Your task to perform on an android device: change alarm snooze length Image 0: 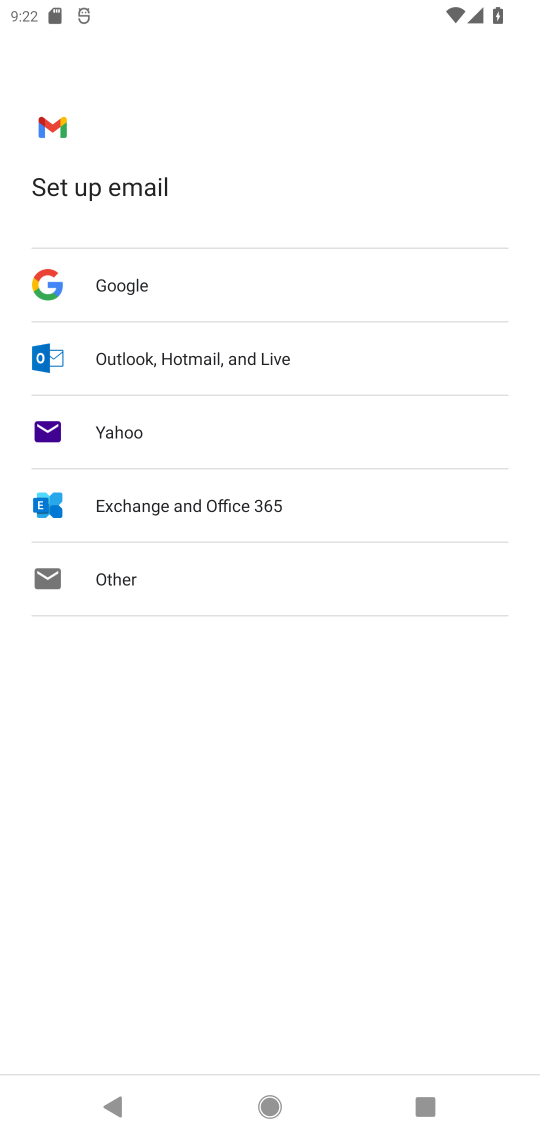
Step 0: press home button
Your task to perform on an android device: change alarm snooze length Image 1: 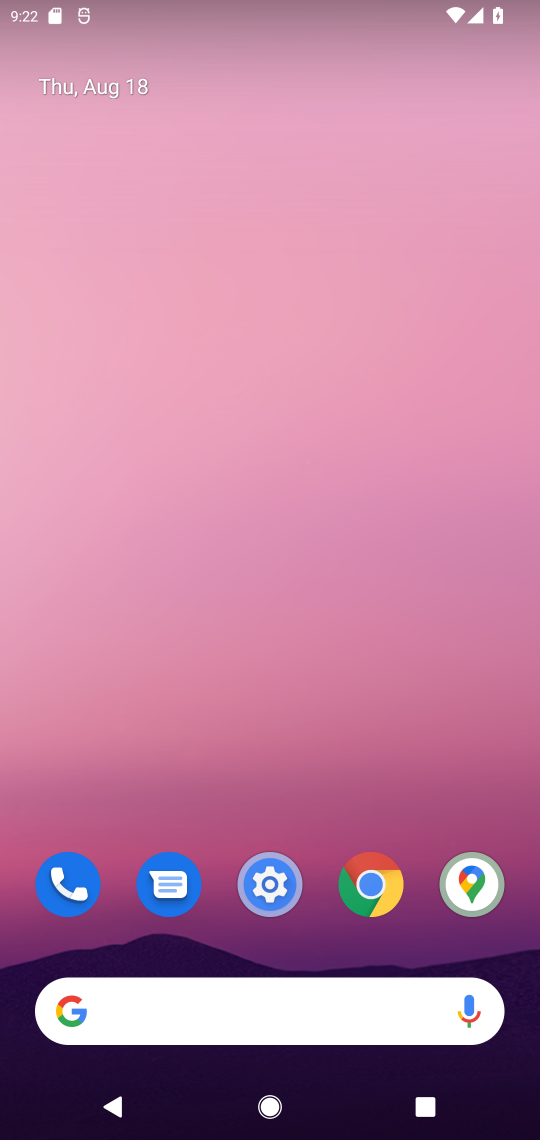
Step 1: drag from (218, 948) to (290, 57)
Your task to perform on an android device: change alarm snooze length Image 2: 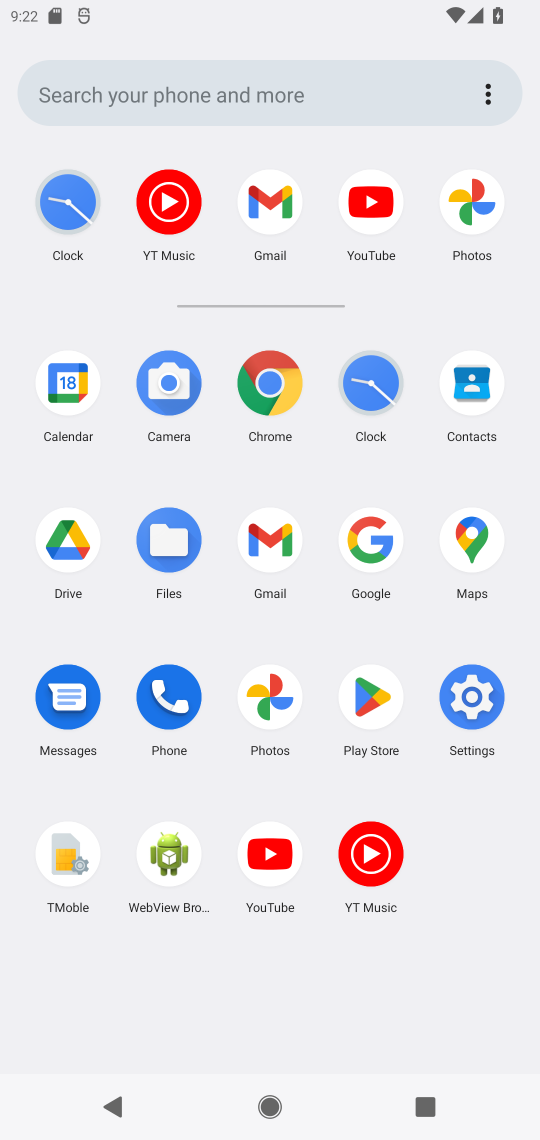
Step 2: click (74, 299)
Your task to perform on an android device: change alarm snooze length Image 3: 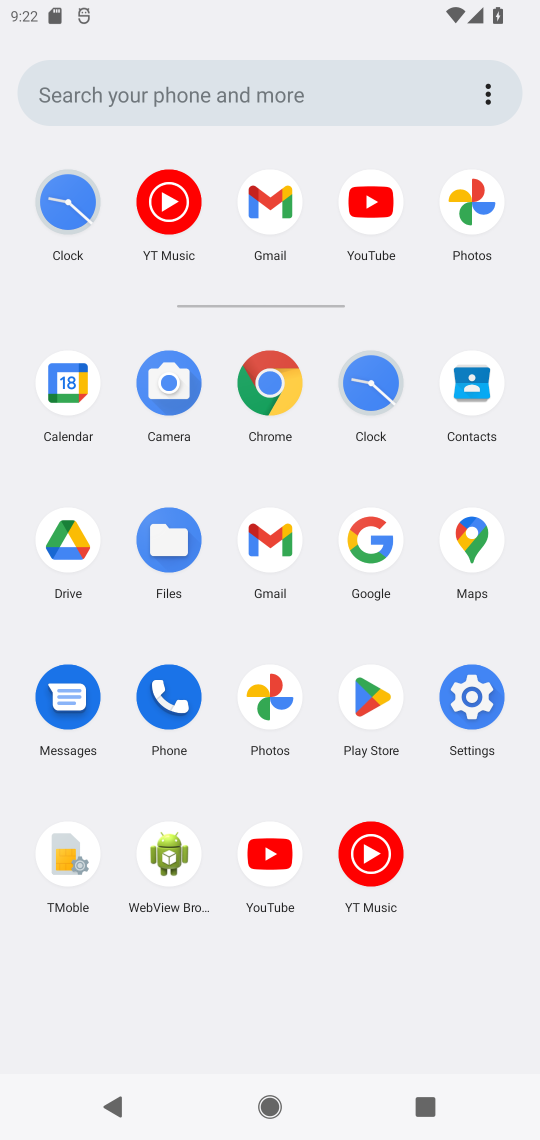
Step 3: click (69, 228)
Your task to perform on an android device: change alarm snooze length Image 4: 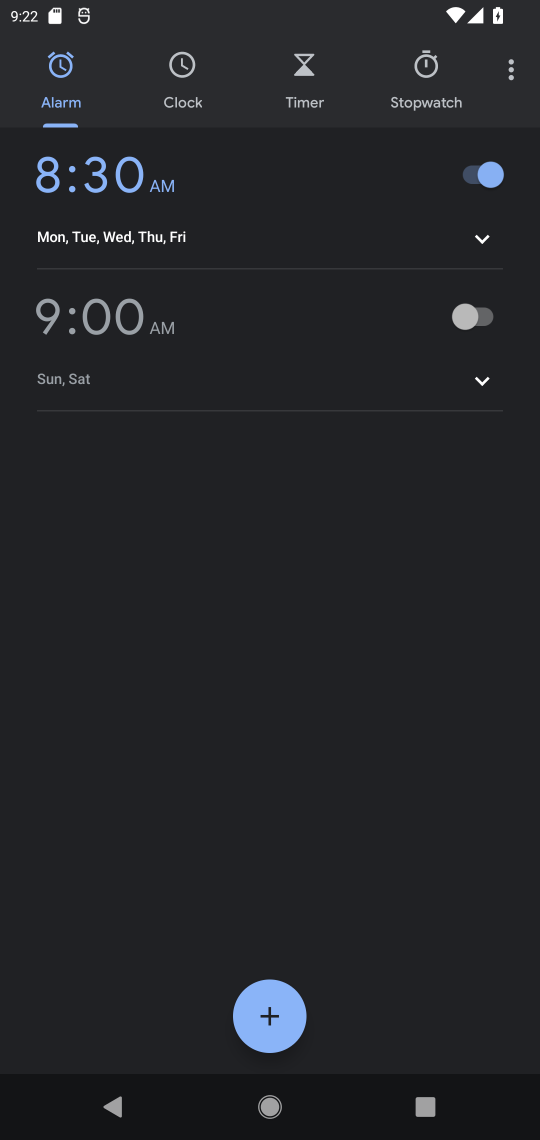
Step 4: click (523, 66)
Your task to perform on an android device: change alarm snooze length Image 5: 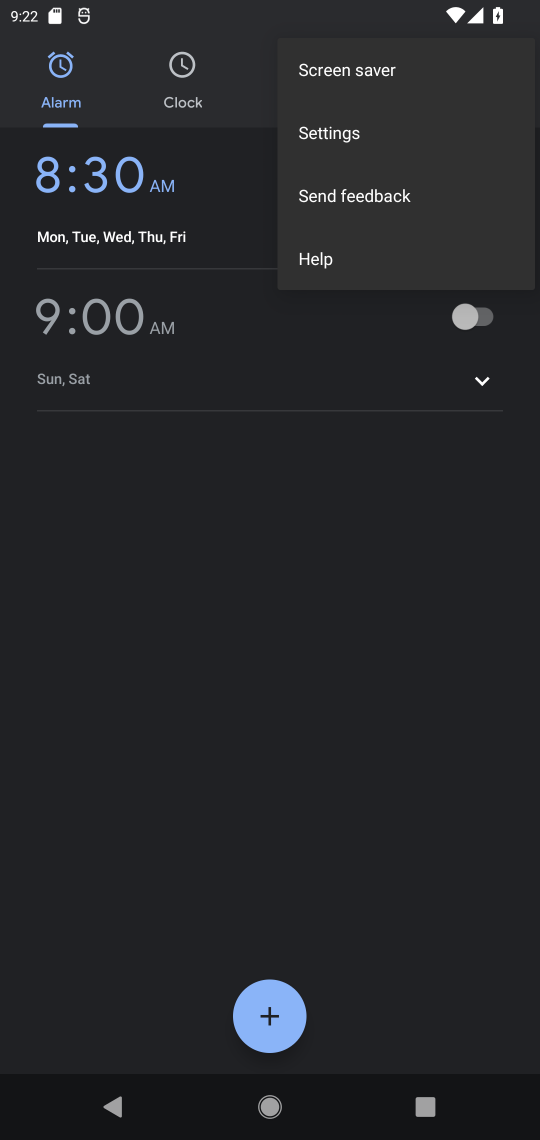
Step 5: click (378, 128)
Your task to perform on an android device: change alarm snooze length Image 6: 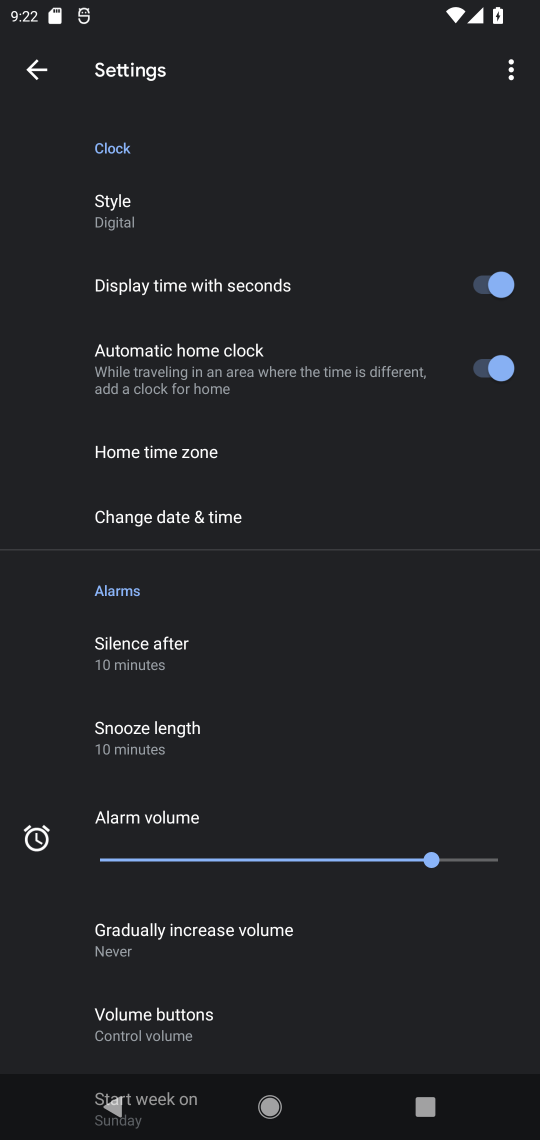
Step 6: click (277, 745)
Your task to perform on an android device: change alarm snooze length Image 7: 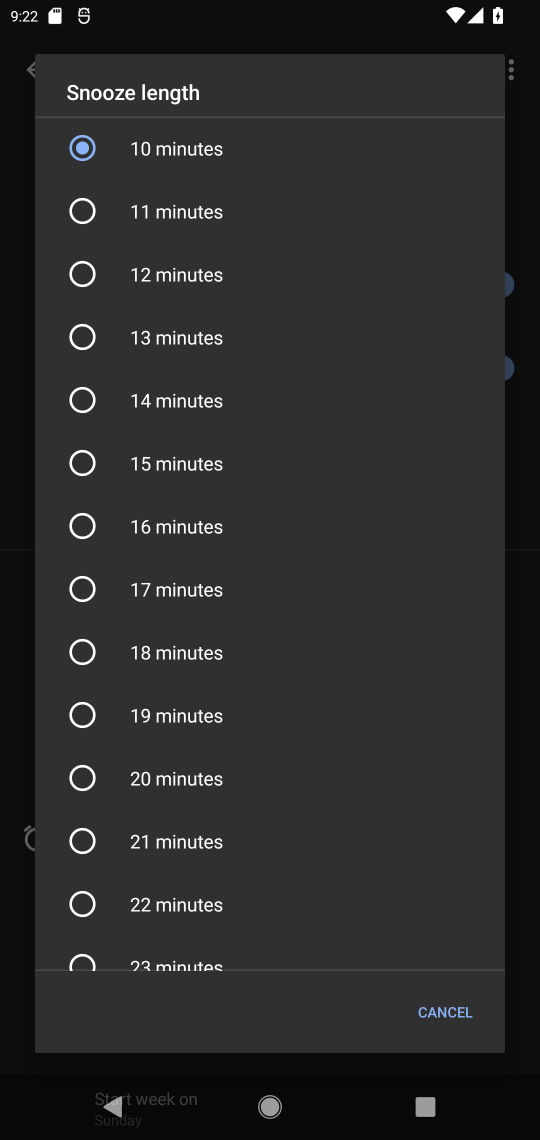
Step 7: click (153, 914)
Your task to perform on an android device: change alarm snooze length Image 8: 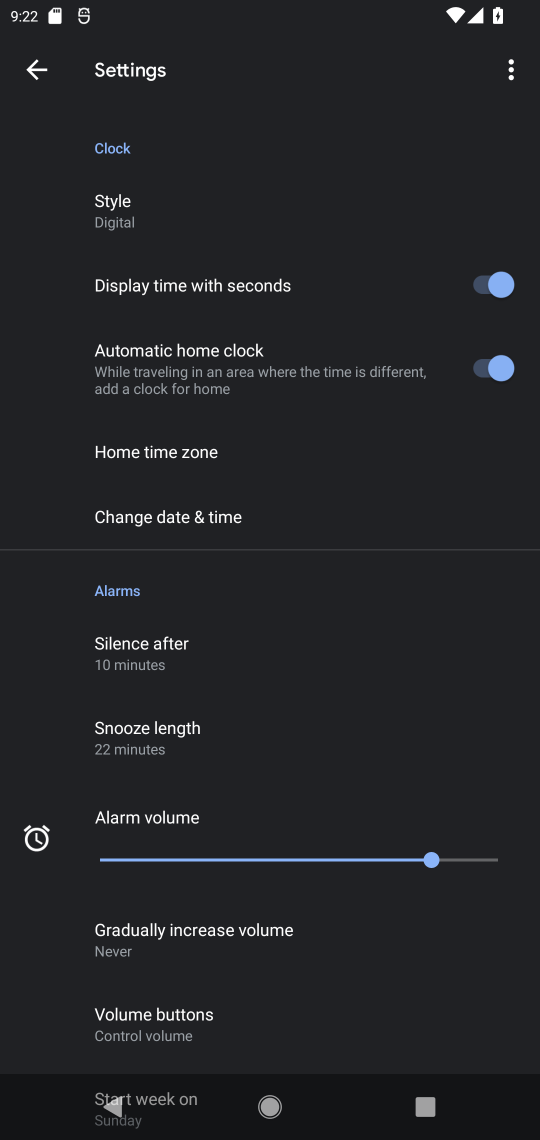
Step 8: task complete